Your task to perform on an android device: turn vacation reply on in the gmail app Image 0: 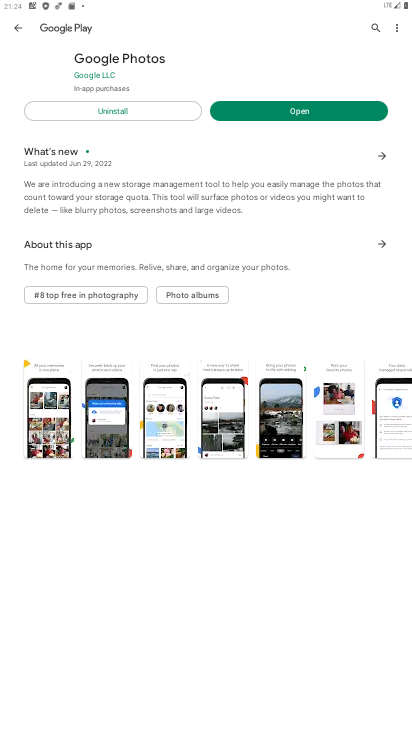
Step 0: drag from (168, 535) to (201, 257)
Your task to perform on an android device: turn vacation reply on in the gmail app Image 1: 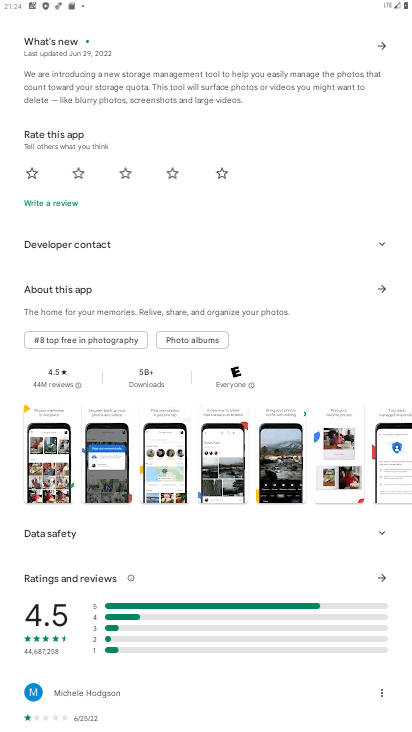
Step 1: drag from (271, 133) to (146, 636)
Your task to perform on an android device: turn vacation reply on in the gmail app Image 2: 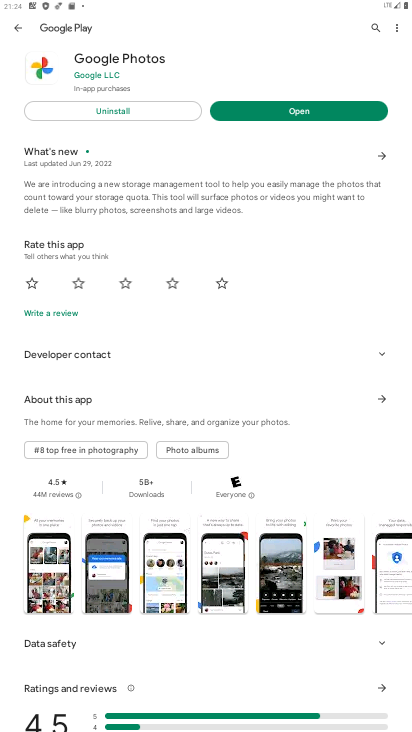
Step 2: press home button
Your task to perform on an android device: turn vacation reply on in the gmail app Image 3: 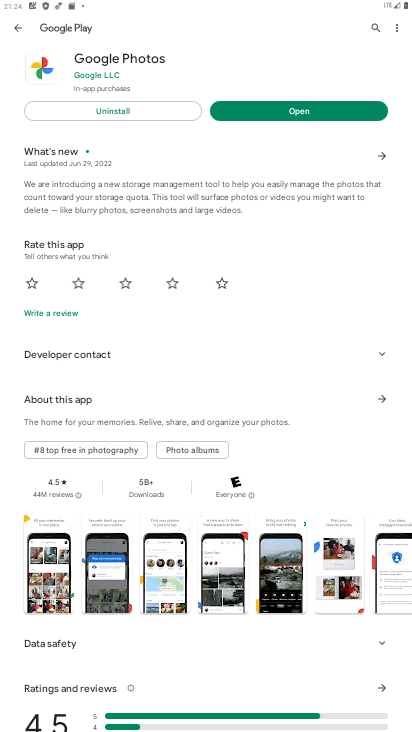
Step 3: press home button
Your task to perform on an android device: turn vacation reply on in the gmail app Image 4: 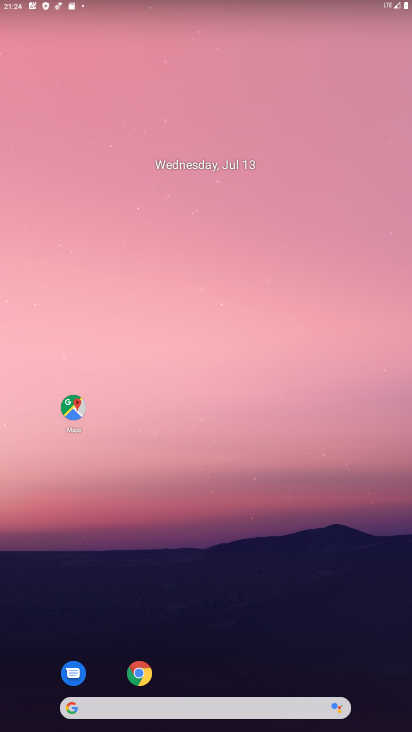
Step 4: drag from (172, 616) to (209, 302)
Your task to perform on an android device: turn vacation reply on in the gmail app Image 5: 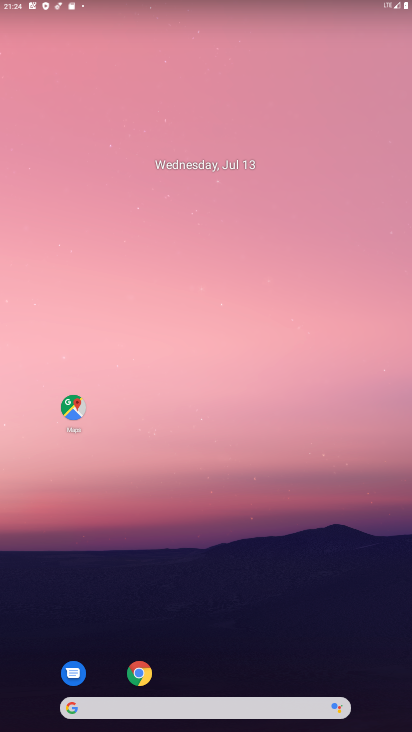
Step 5: drag from (178, 680) to (251, 96)
Your task to perform on an android device: turn vacation reply on in the gmail app Image 6: 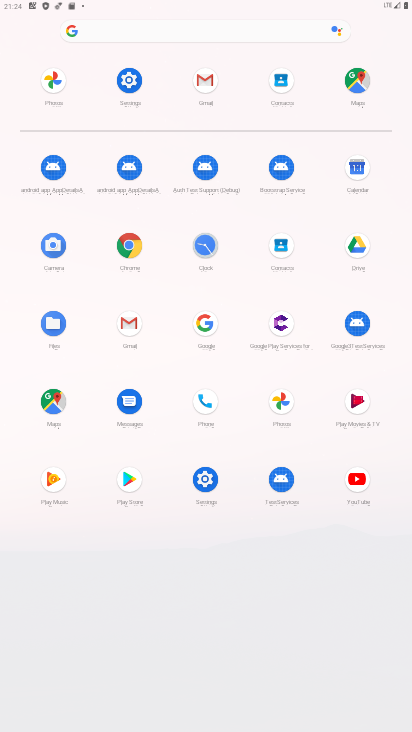
Step 6: click (195, 81)
Your task to perform on an android device: turn vacation reply on in the gmail app Image 7: 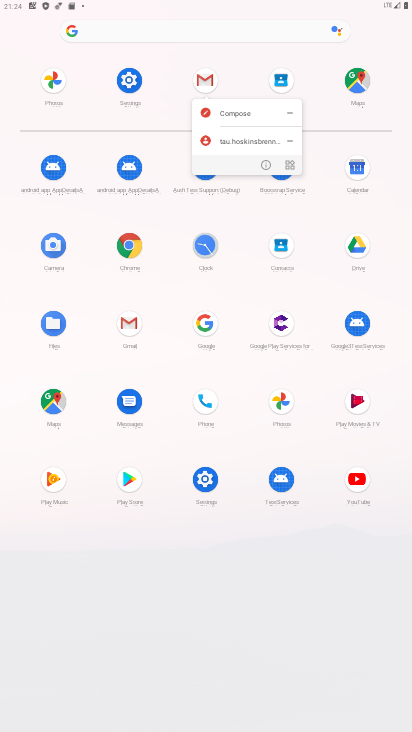
Step 7: click (262, 159)
Your task to perform on an android device: turn vacation reply on in the gmail app Image 8: 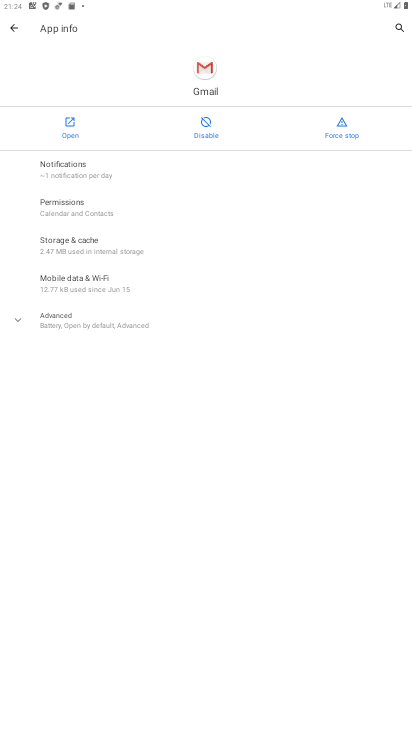
Step 8: click (67, 134)
Your task to perform on an android device: turn vacation reply on in the gmail app Image 9: 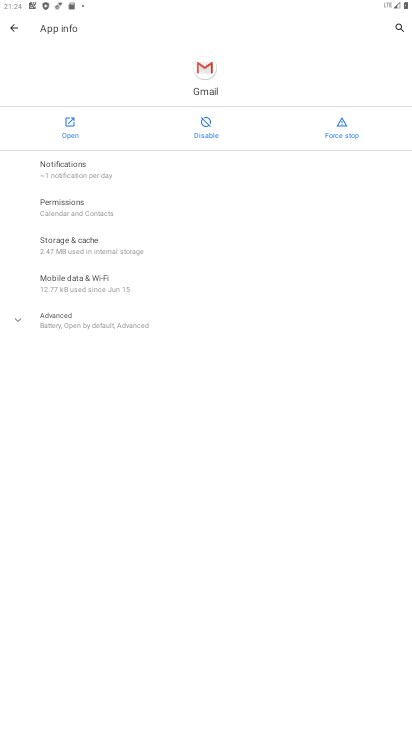
Step 9: click (67, 134)
Your task to perform on an android device: turn vacation reply on in the gmail app Image 10: 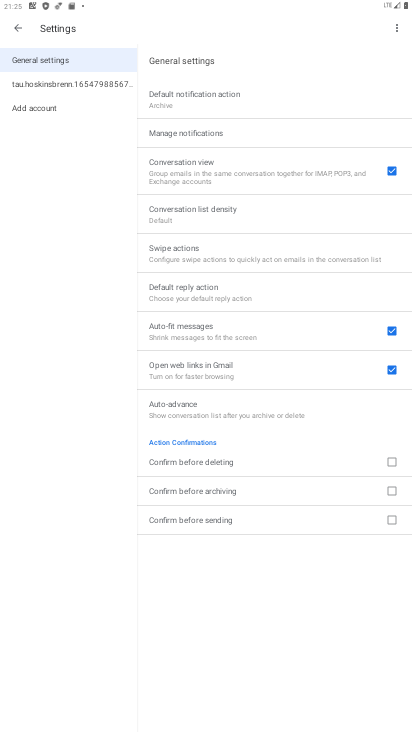
Step 10: click (68, 82)
Your task to perform on an android device: turn vacation reply on in the gmail app Image 11: 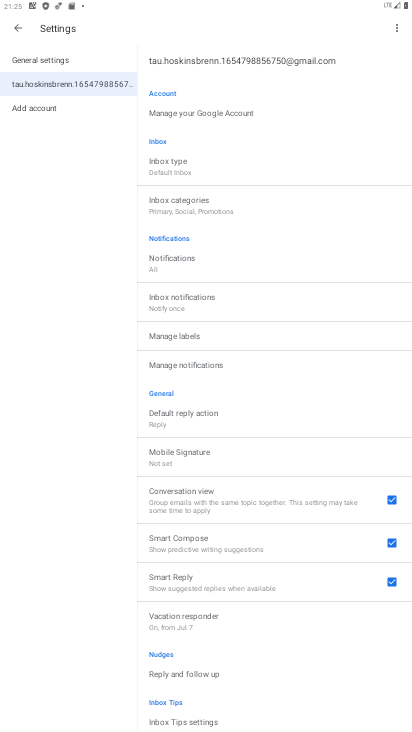
Step 11: click (204, 625)
Your task to perform on an android device: turn vacation reply on in the gmail app Image 12: 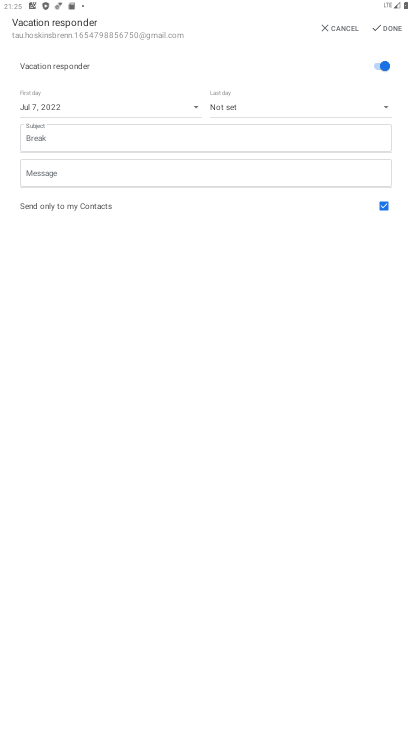
Step 12: drag from (291, 538) to (259, 129)
Your task to perform on an android device: turn vacation reply on in the gmail app Image 13: 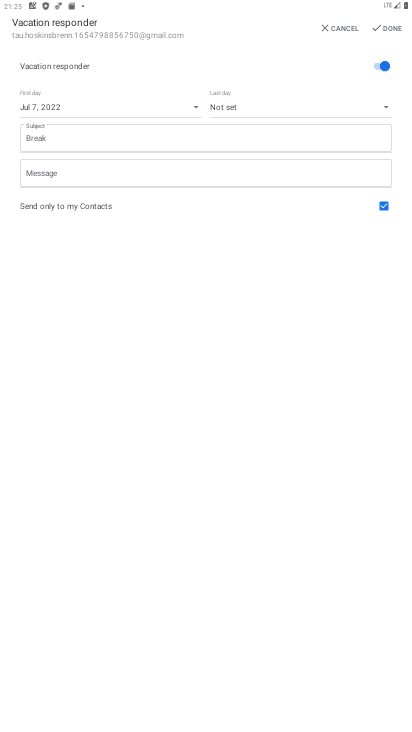
Step 13: click (394, 24)
Your task to perform on an android device: turn vacation reply on in the gmail app Image 14: 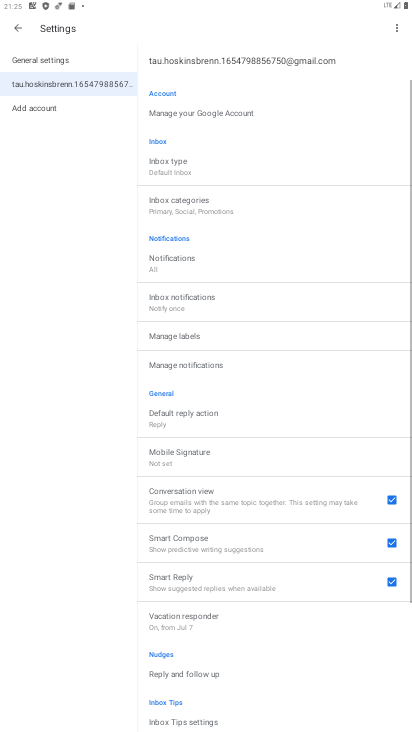
Step 14: task complete